Your task to perform on an android device: set an alarm Image 0: 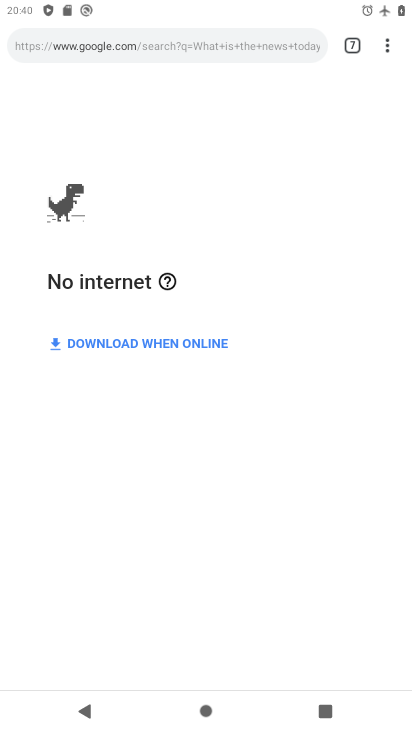
Step 0: press home button
Your task to perform on an android device: set an alarm Image 1: 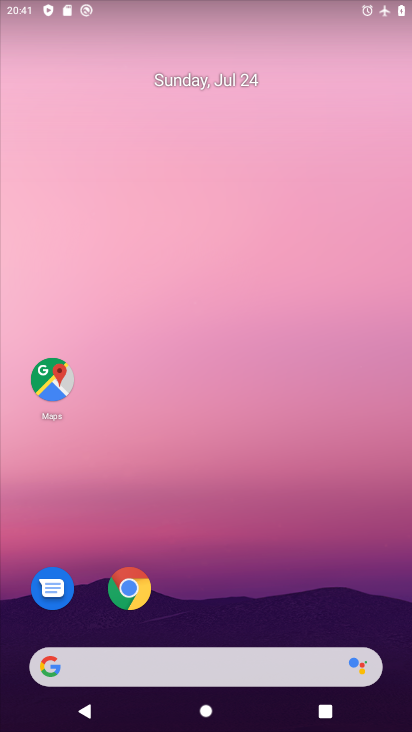
Step 1: drag from (223, 646) to (213, 298)
Your task to perform on an android device: set an alarm Image 2: 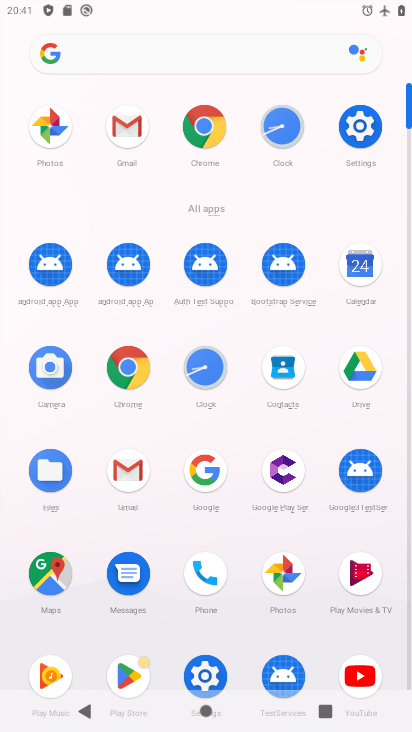
Step 2: click (214, 360)
Your task to perform on an android device: set an alarm Image 3: 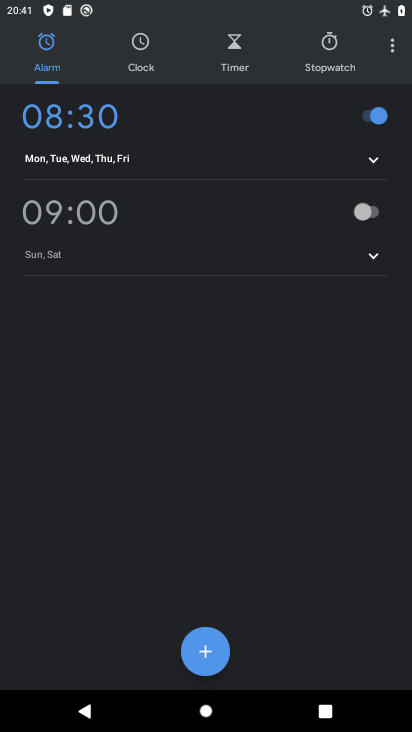
Step 3: click (364, 219)
Your task to perform on an android device: set an alarm Image 4: 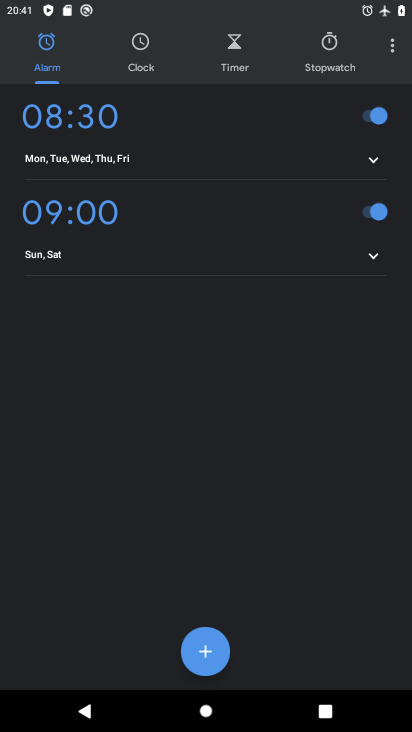
Step 4: task complete